Your task to perform on an android device: toggle data saver in the chrome app Image 0: 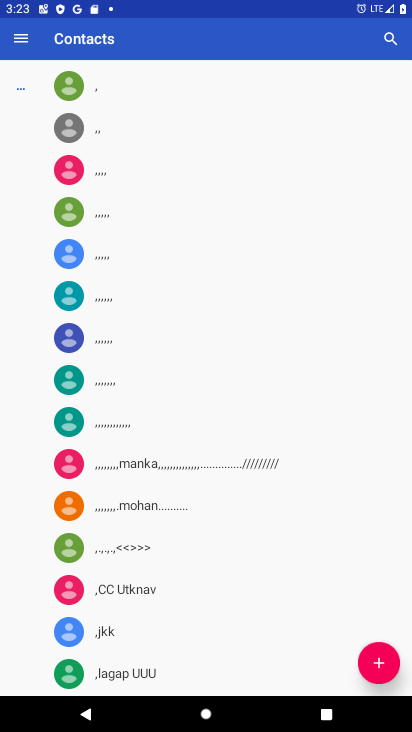
Step 0: press home button
Your task to perform on an android device: toggle data saver in the chrome app Image 1: 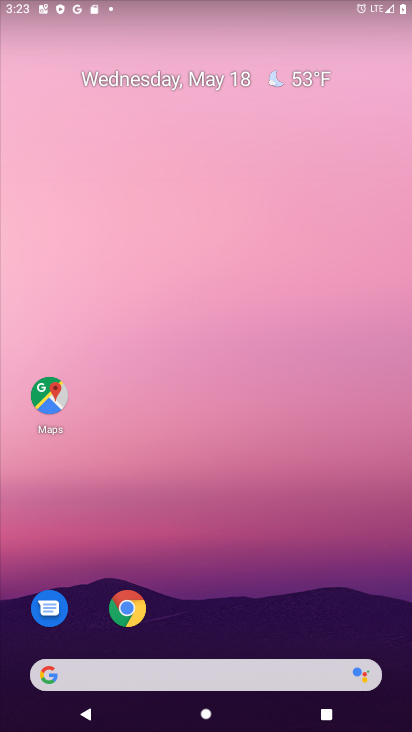
Step 1: click (115, 613)
Your task to perform on an android device: toggle data saver in the chrome app Image 2: 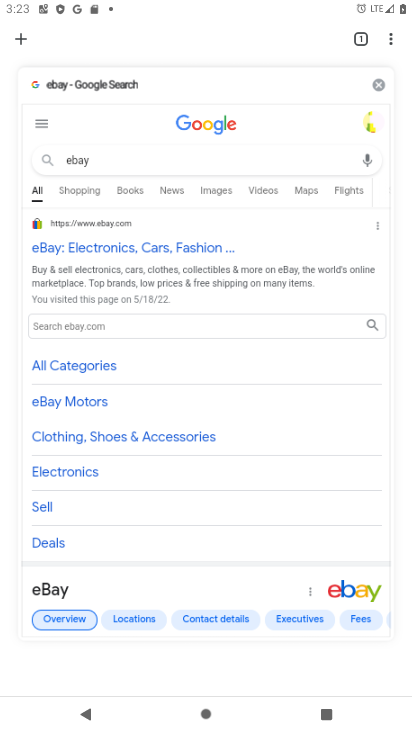
Step 2: click (391, 42)
Your task to perform on an android device: toggle data saver in the chrome app Image 3: 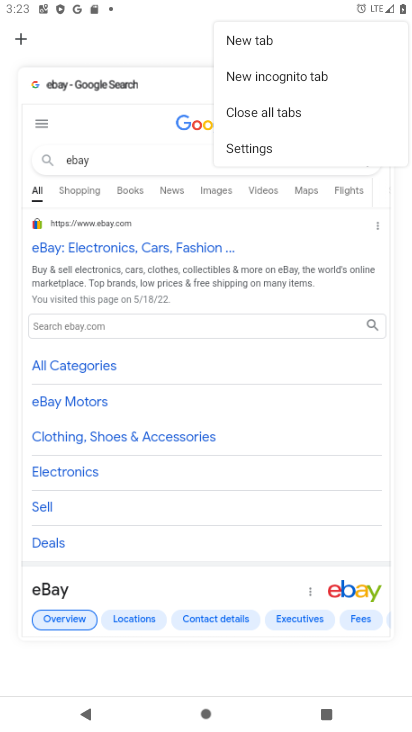
Step 3: click (260, 147)
Your task to perform on an android device: toggle data saver in the chrome app Image 4: 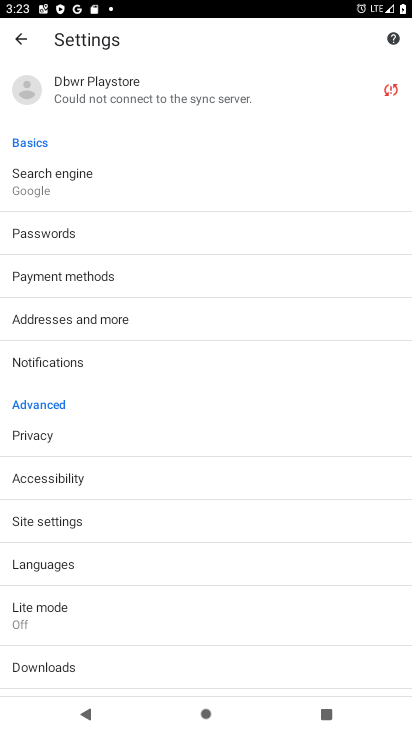
Step 4: click (47, 611)
Your task to perform on an android device: toggle data saver in the chrome app Image 5: 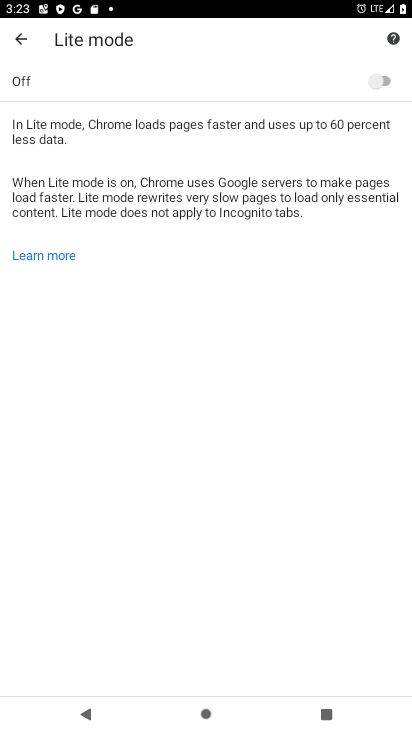
Step 5: click (384, 84)
Your task to perform on an android device: toggle data saver in the chrome app Image 6: 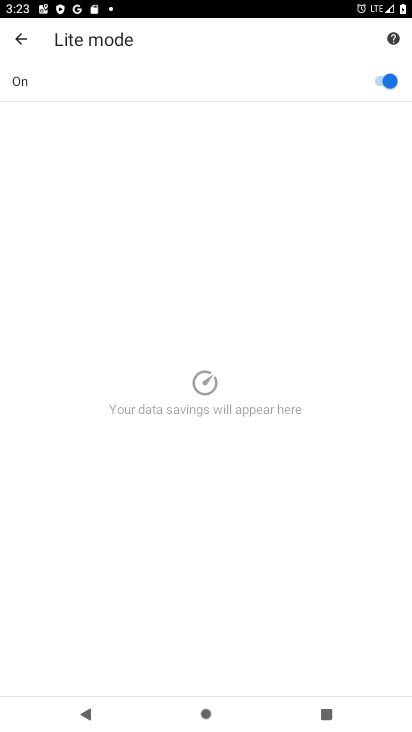
Step 6: task complete